Your task to perform on an android device: change notification settings in the gmail app Image 0: 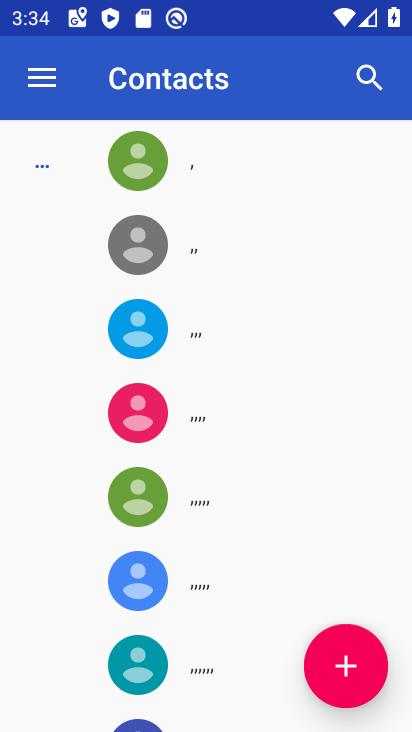
Step 0: press home button
Your task to perform on an android device: change notification settings in the gmail app Image 1: 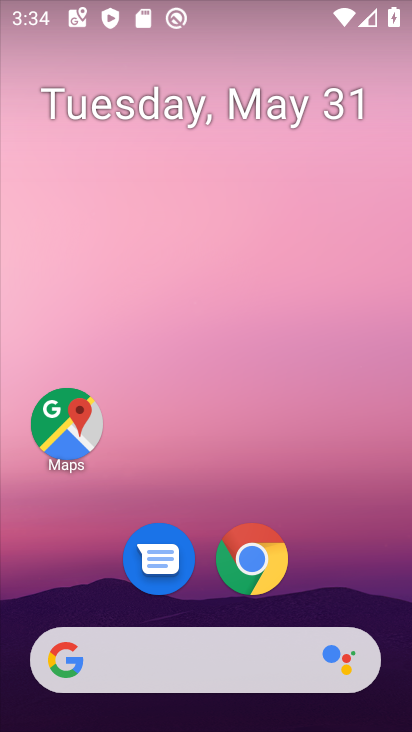
Step 1: drag from (242, 727) to (216, 200)
Your task to perform on an android device: change notification settings in the gmail app Image 2: 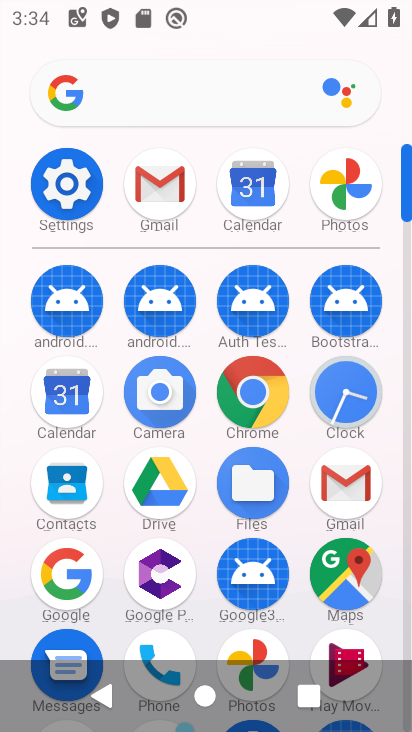
Step 2: click (71, 185)
Your task to perform on an android device: change notification settings in the gmail app Image 3: 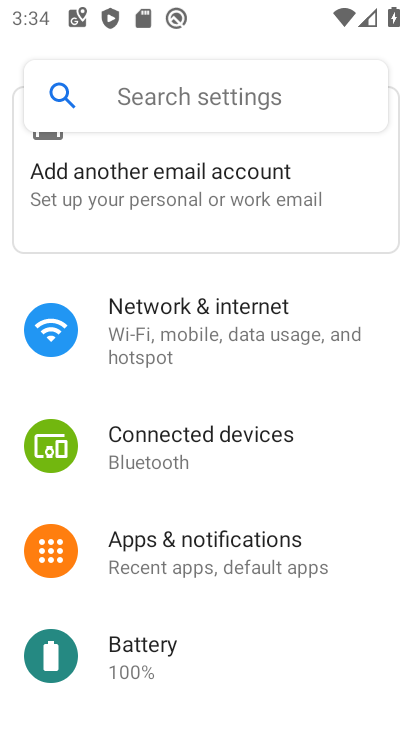
Step 3: press home button
Your task to perform on an android device: change notification settings in the gmail app Image 4: 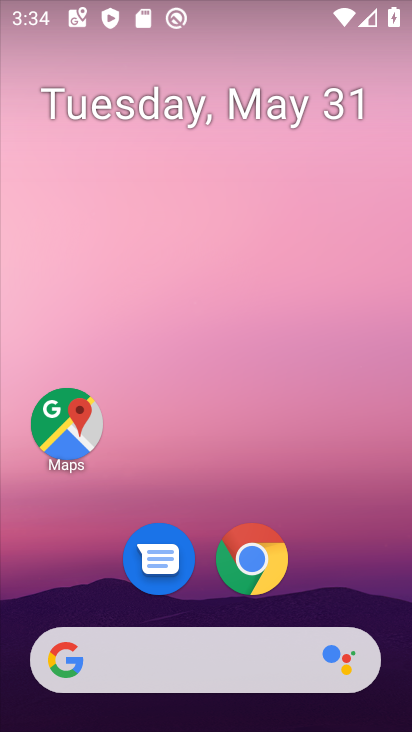
Step 4: drag from (193, 722) to (195, 644)
Your task to perform on an android device: change notification settings in the gmail app Image 5: 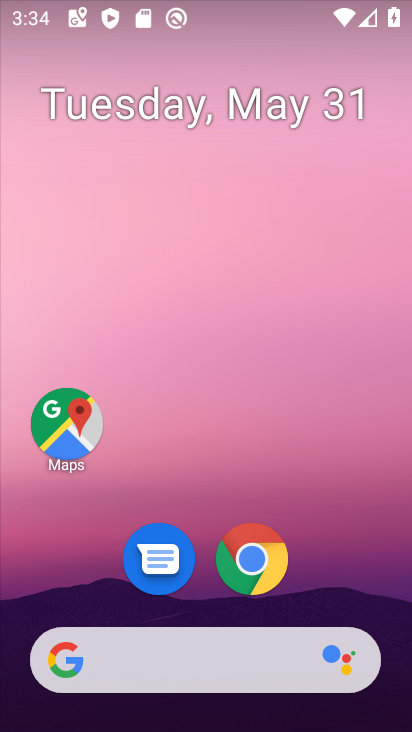
Step 5: drag from (195, 351) to (195, 227)
Your task to perform on an android device: change notification settings in the gmail app Image 6: 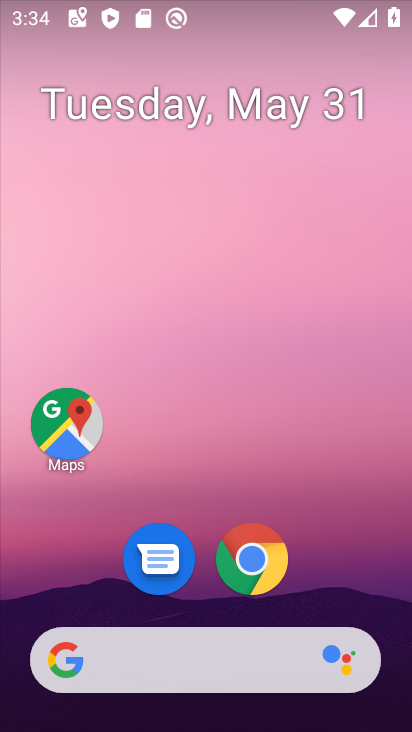
Step 6: drag from (227, 723) to (203, 133)
Your task to perform on an android device: change notification settings in the gmail app Image 7: 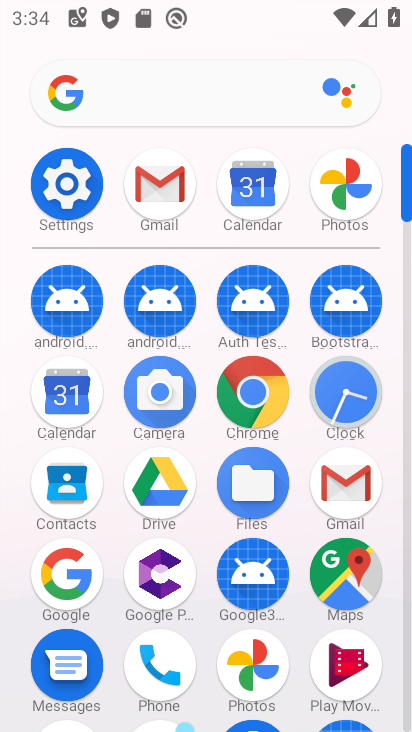
Step 7: click (351, 477)
Your task to perform on an android device: change notification settings in the gmail app Image 8: 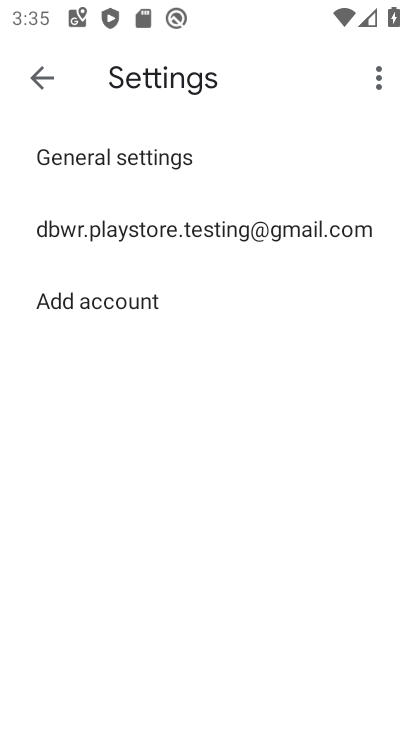
Step 8: click (133, 231)
Your task to perform on an android device: change notification settings in the gmail app Image 9: 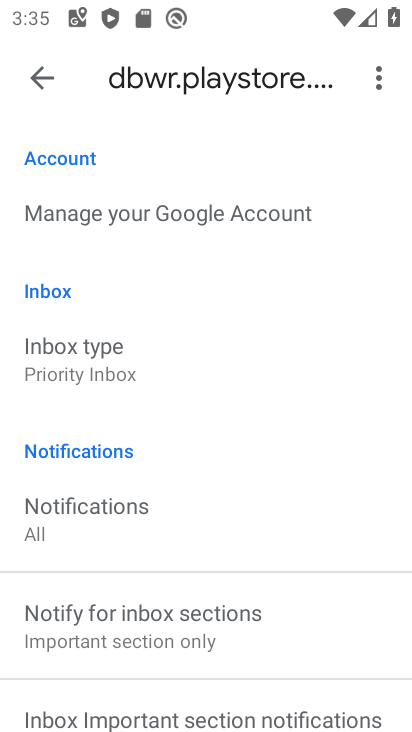
Step 9: click (90, 521)
Your task to perform on an android device: change notification settings in the gmail app Image 10: 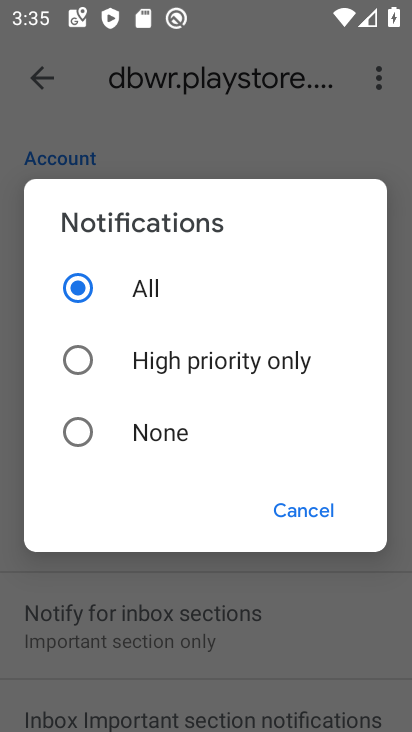
Step 10: click (73, 427)
Your task to perform on an android device: change notification settings in the gmail app Image 11: 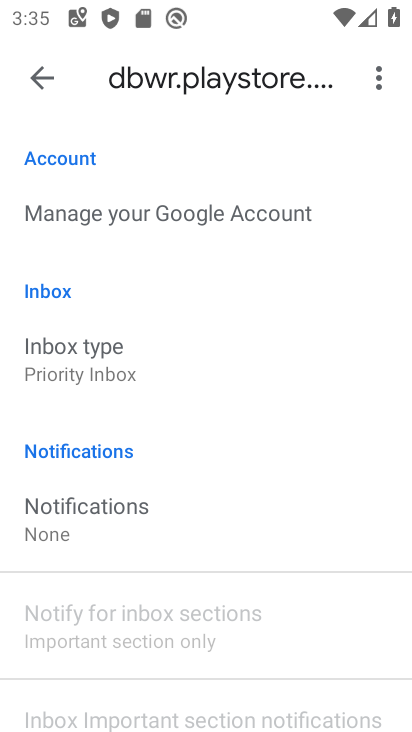
Step 11: task complete